Your task to perform on an android device: toggle location history Image 0: 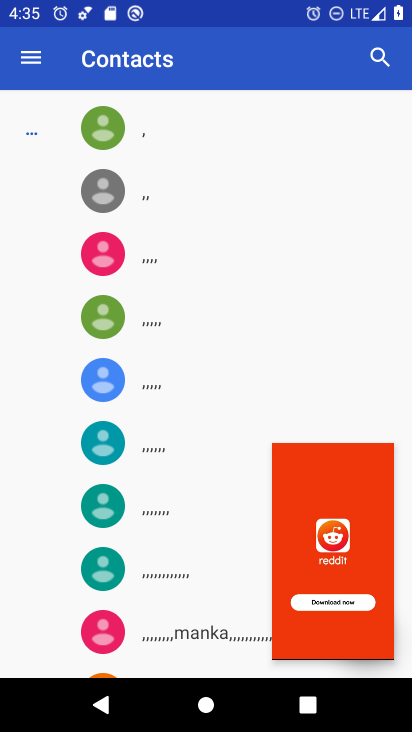
Step 0: press home button
Your task to perform on an android device: toggle location history Image 1: 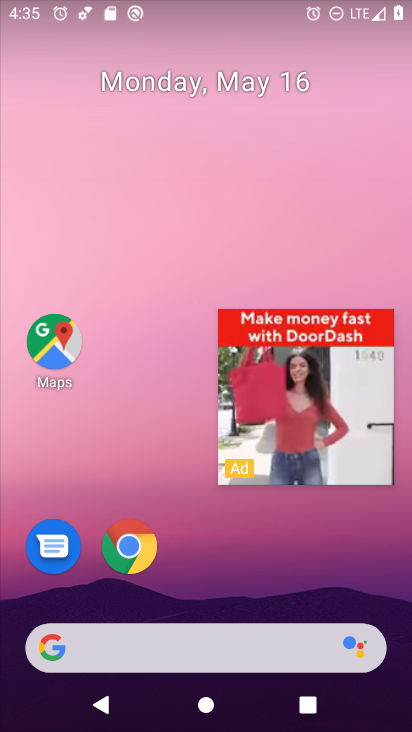
Step 1: drag from (211, 580) to (235, 117)
Your task to perform on an android device: toggle location history Image 2: 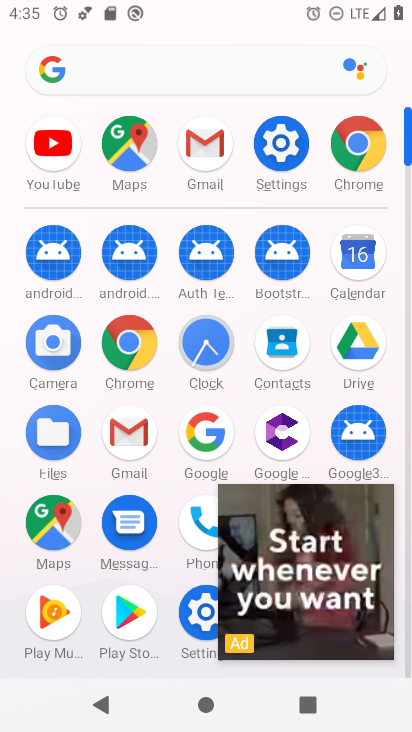
Step 2: click (283, 158)
Your task to perform on an android device: toggle location history Image 3: 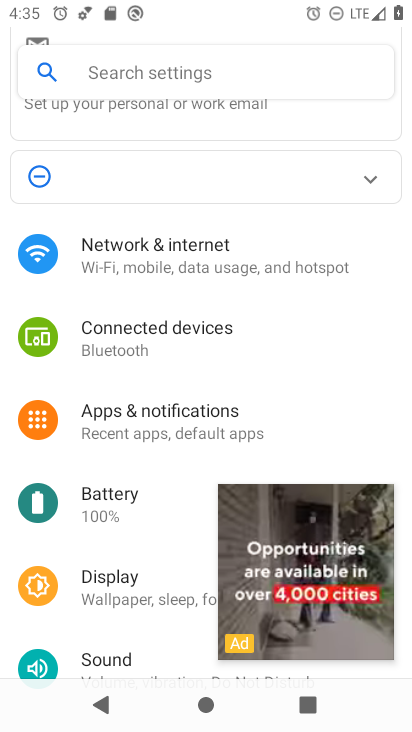
Step 3: drag from (173, 531) to (177, 375)
Your task to perform on an android device: toggle location history Image 4: 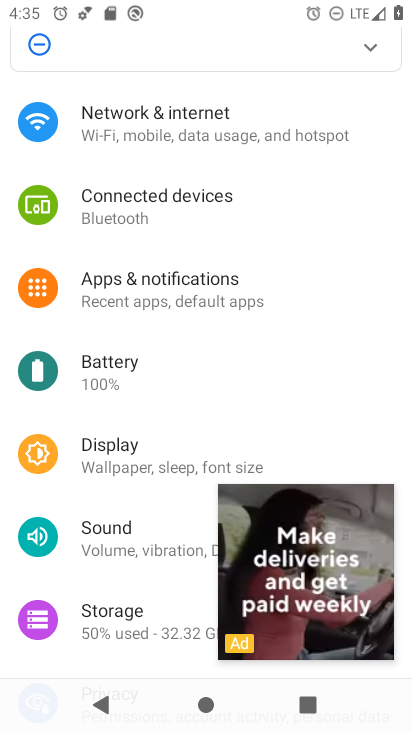
Step 4: drag from (173, 606) to (176, 405)
Your task to perform on an android device: toggle location history Image 5: 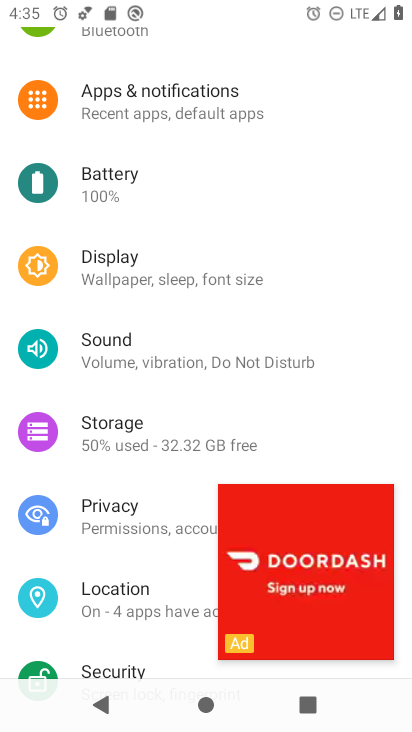
Step 5: drag from (158, 634) to (166, 437)
Your task to perform on an android device: toggle location history Image 6: 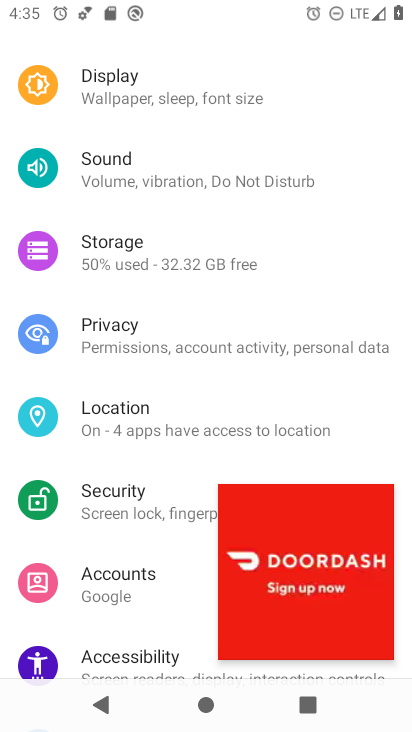
Step 6: drag from (162, 629) to (166, 415)
Your task to perform on an android device: toggle location history Image 7: 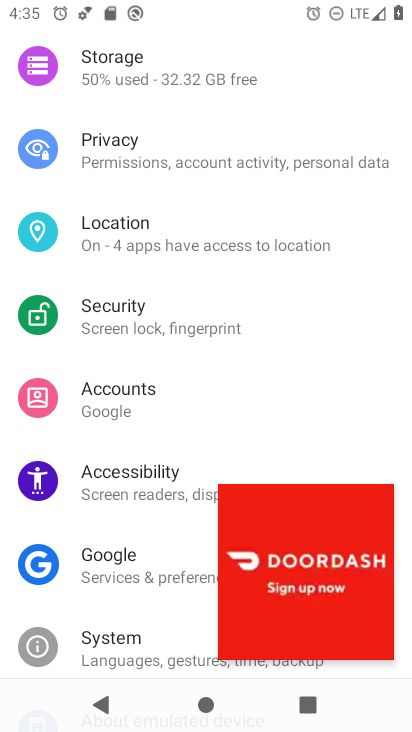
Step 7: drag from (162, 622) to (166, 420)
Your task to perform on an android device: toggle location history Image 8: 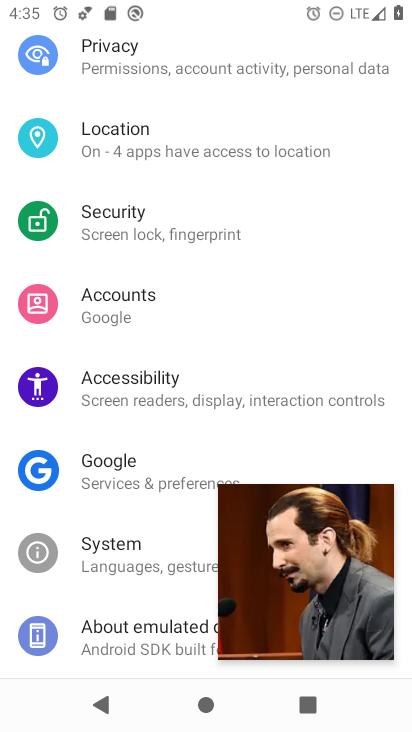
Step 8: click (178, 161)
Your task to perform on an android device: toggle location history Image 9: 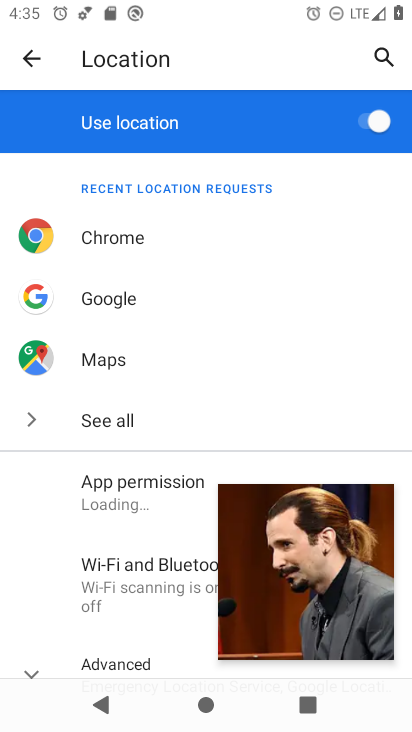
Step 9: drag from (140, 608) to (149, 460)
Your task to perform on an android device: toggle location history Image 10: 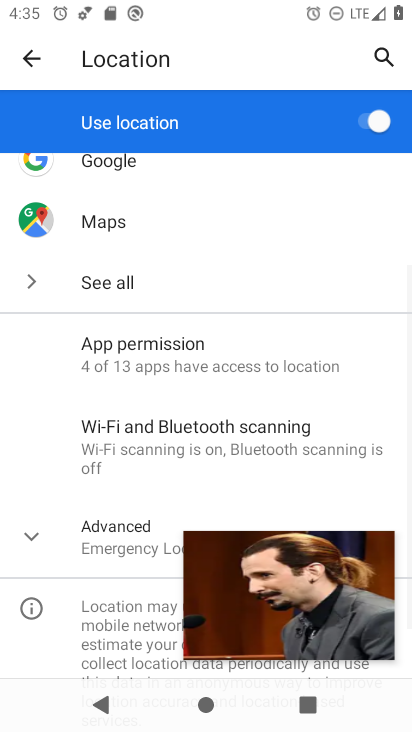
Step 10: drag from (134, 614) to (137, 451)
Your task to perform on an android device: toggle location history Image 11: 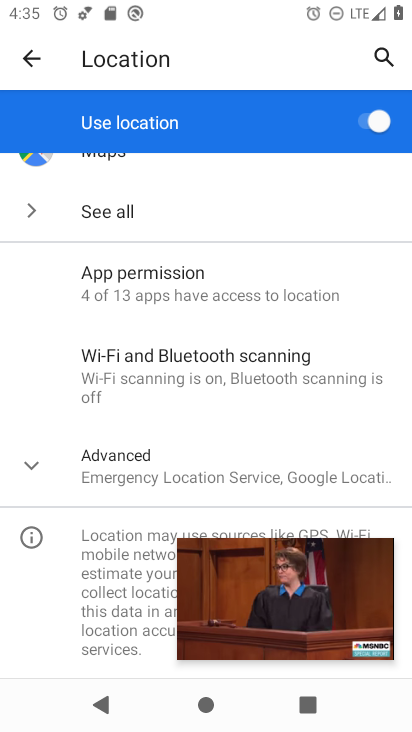
Step 11: click (130, 480)
Your task to perform on an android device: toggle location history Image 12: 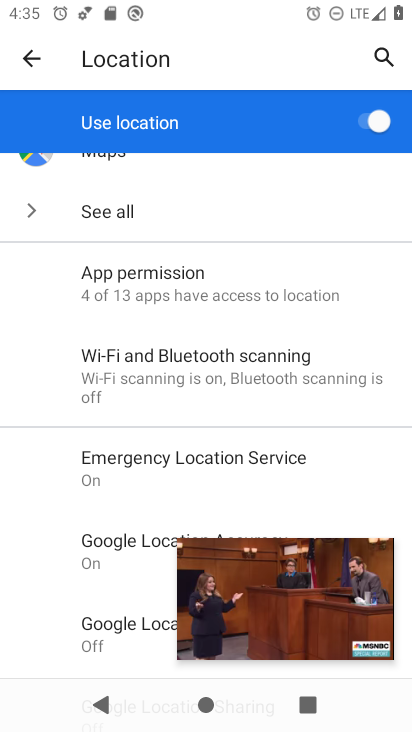
Step 12: drag from (126, 595) to (132, 358)
Your task to perform on an android device: toggle location history Image 13: 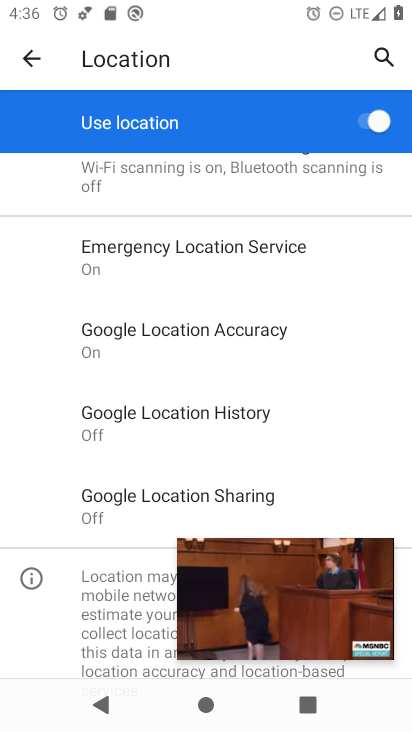
Step 13: click (130, 426)
Your task to perform on an android device: toggle location history Image 14: 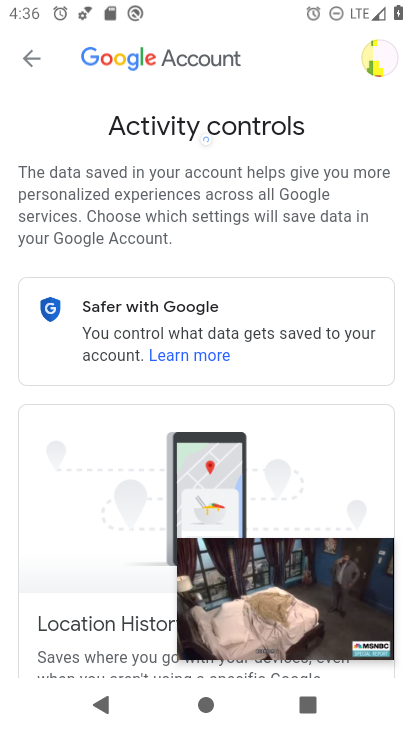
Step 14: drag from (124, 553) to (135, 326)
Your task to perform on an android device: toggle location history Image 15: 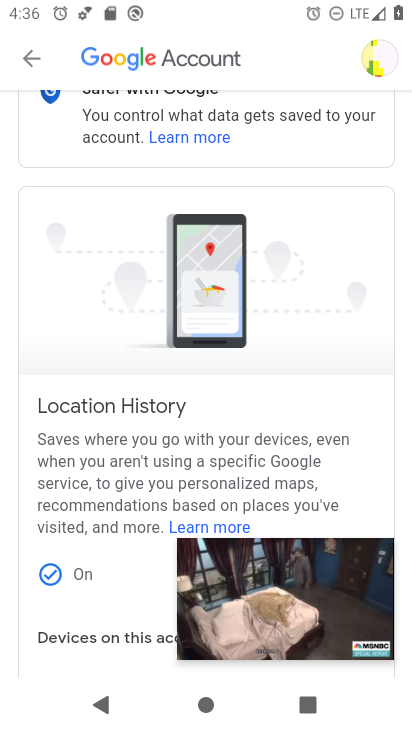
Step 15: drag from (124, 564) to (133, 344)
Your task to perform on an android device: toggle location history Image 16: 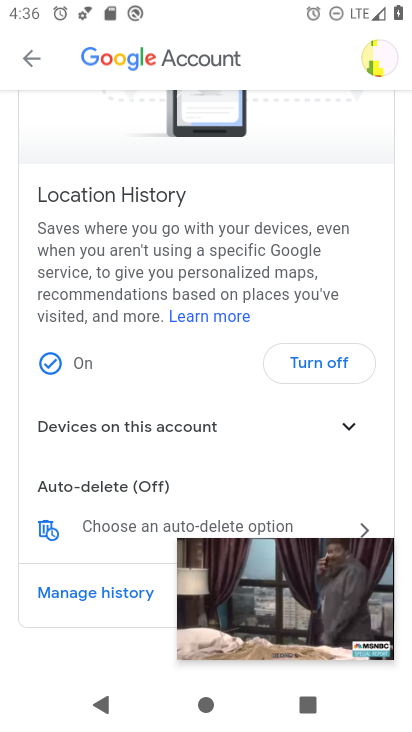
Step 16: click (307, 367)
Your task to perform on an android device: toggle location history Image 17: 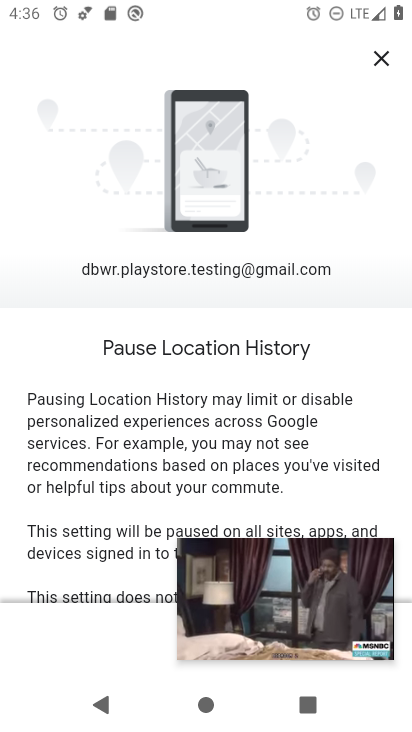
Step 17: drag from (199, 468) to (202, 282)
Your task to perform on an android device: toggle location history Image 18: 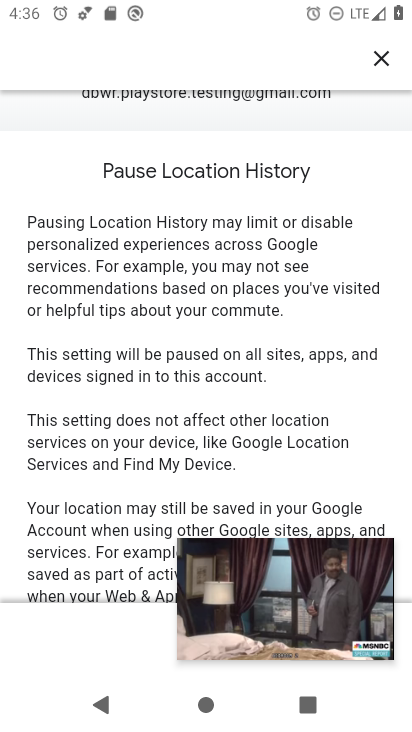
Step 18: drag from (147, 494) to (170, 253)
Your task to perform on an android device: toggle location history Image 19: 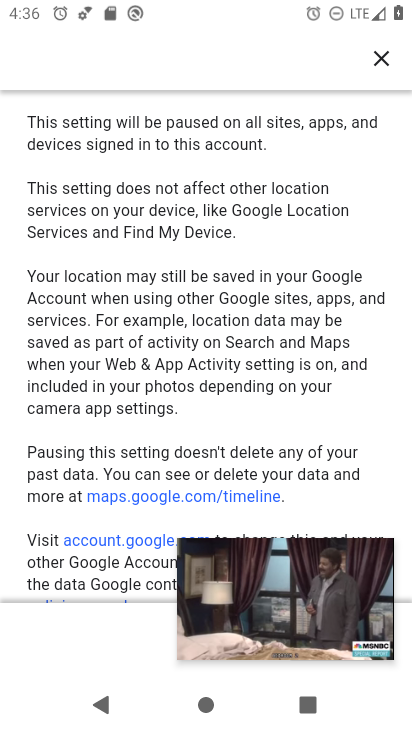
Step 19: drag from (159, 500) to (171, 278)
Your task to perform on an android device: toggle location history Image 20: 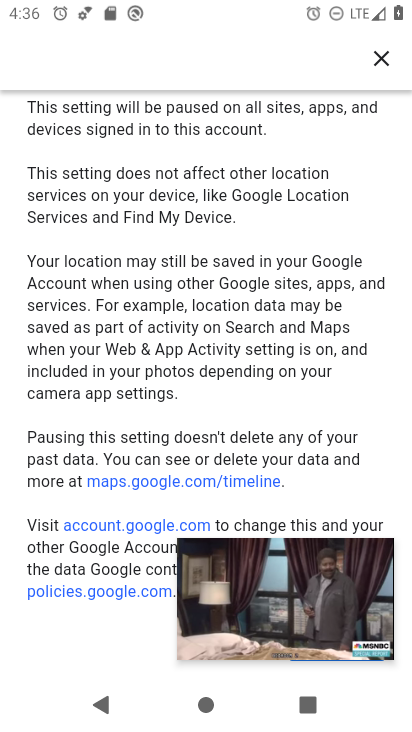
Step 20: drag from (147, 509) to (158, 336)
Your task to perform on an android device: toggle location history Image 21: 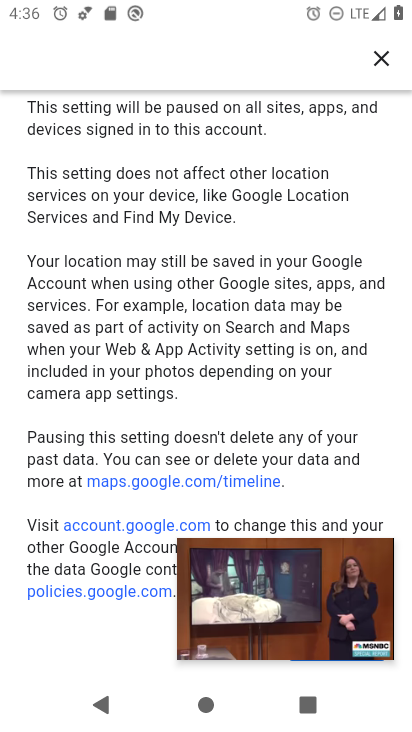
Step 21: drag from (226, 570) to (225, 299)
Your task to perform on an android device: toggle location history Image 22: 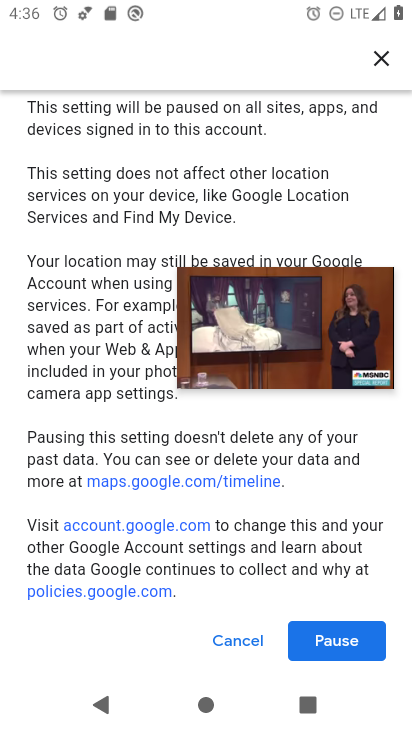
Step 22: click (349, 643)
Your task to perform on an android device: toggle location history Image 23: 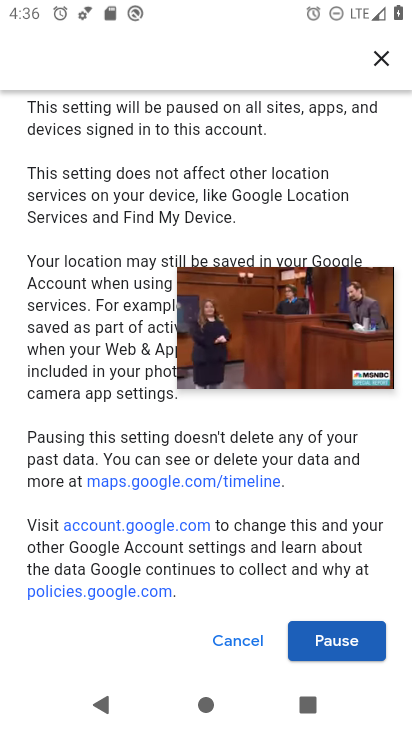
Step 23: click (356, 636)
Your task to perform on an android device: toggle location history Image 24: 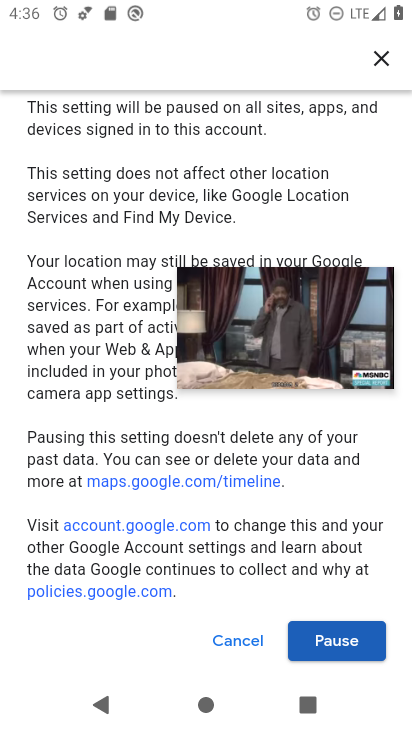
Step 24: click (351, 649)
Your task to perform on an android device: toggle location history Image 25: 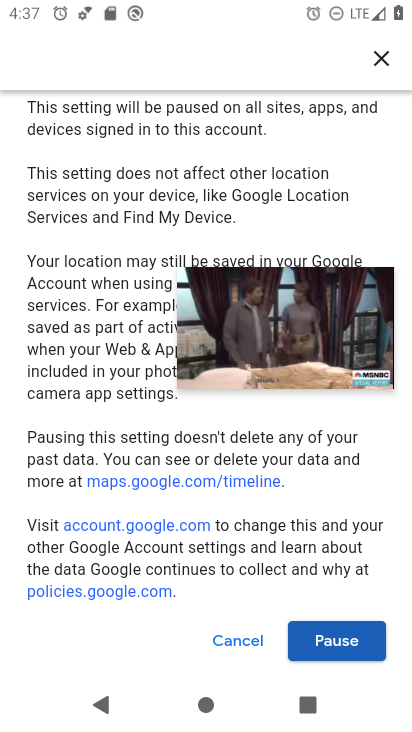
Step 25: drag from (110, 300) to (147, 286)
Your task to perform on an android device: toggle location history Image 26: 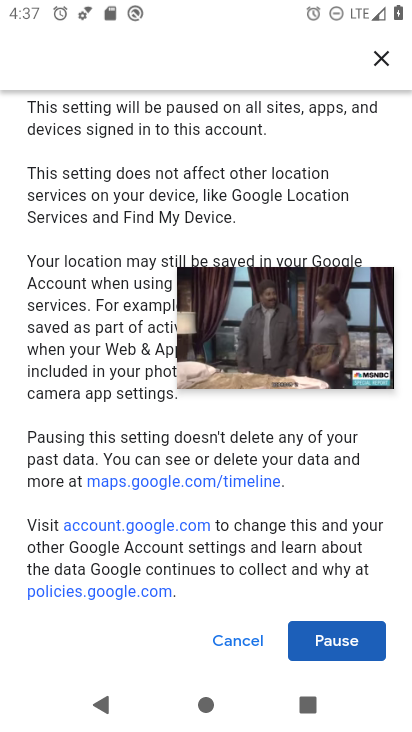
Step 26: click (331, 646)
Your task to perform on an android device: toggle location history Image 27: 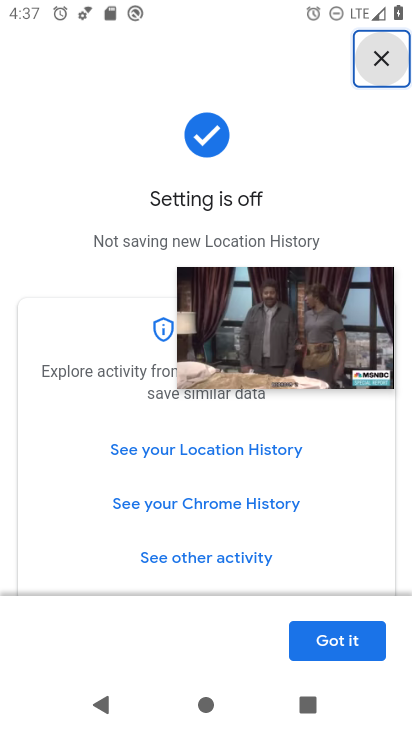
Step 27: task complete